Your task to perform on an android device: Open settings on Google Maps Image 0: 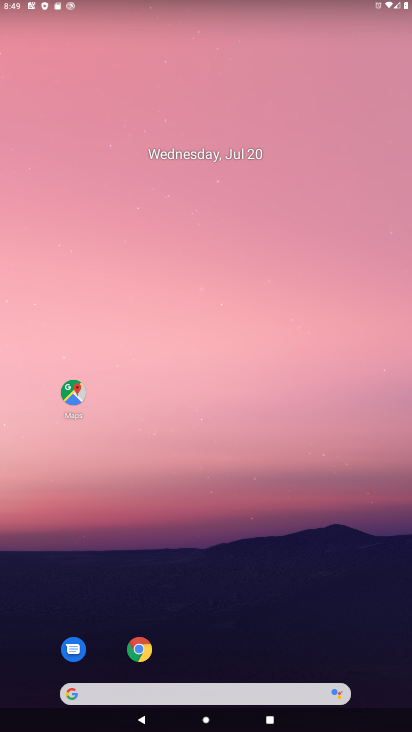
Step 0: click (72, 399)
Your task to perform on an android device: Open settings on Google Maps Image 1: 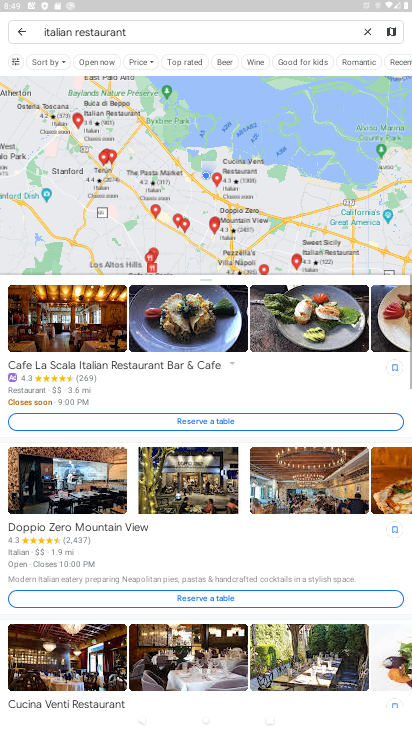
Step 1: click (26, 32)
Your task to perform on an android device: Open settings on Google Maps Image 2: 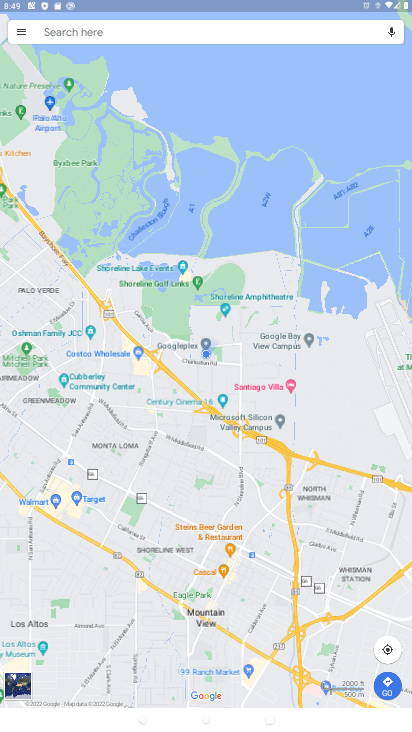
Step 2: click (19, 34)
Your task to perform on an android device: Open settings on Google Maps Image 3: 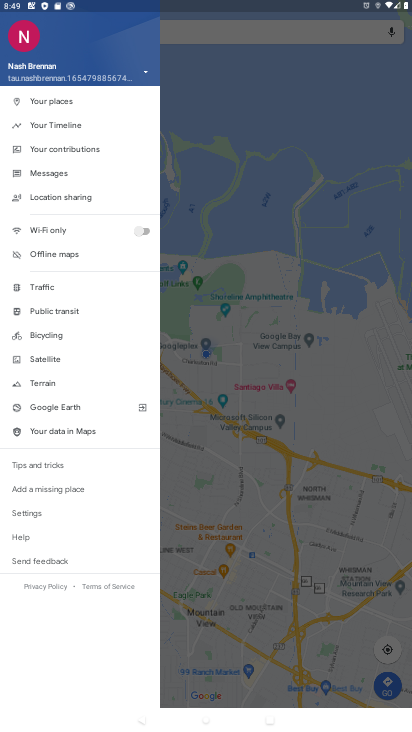
Step 3: click (38, 518)
Your task to perform on an android device: Open settings on Google Maps Image 4: 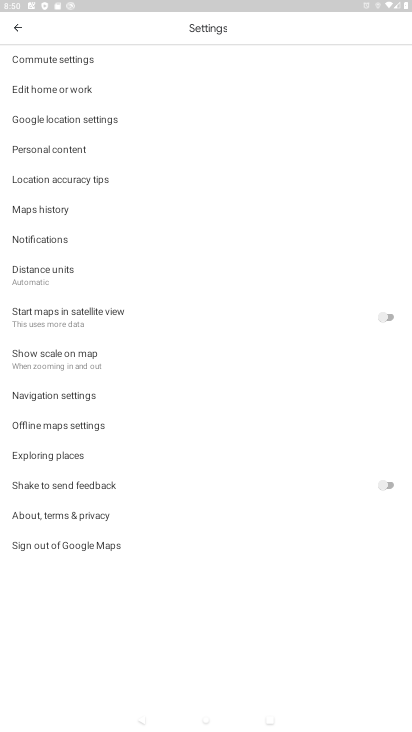
Step 4: task complete